Your task to perform on an android device: toggle location history Image 0: 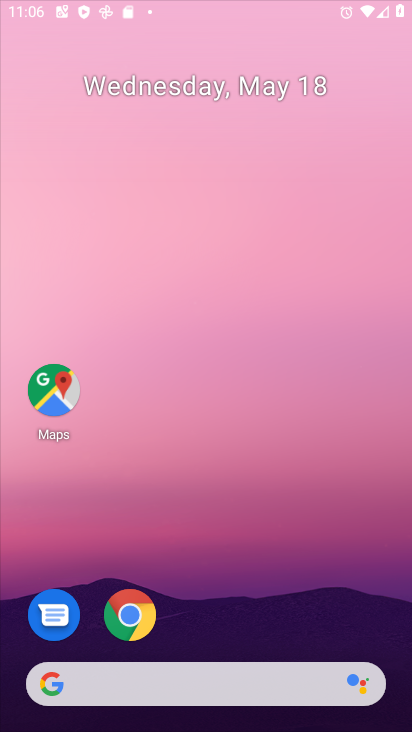
Step 0: drag from (189, 520) to (215, 267)
Your task to perform on an android device: toggle location history Image 1: 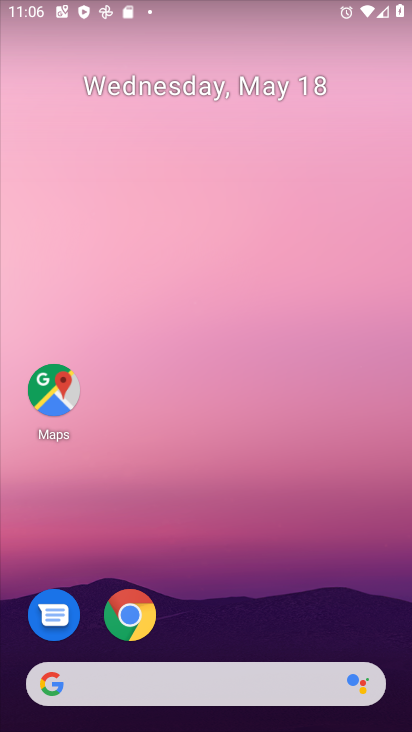
Step 1: drag from (236, 666) to (256, 218)
Your task to perform on an android device: toggle location history Image 2: 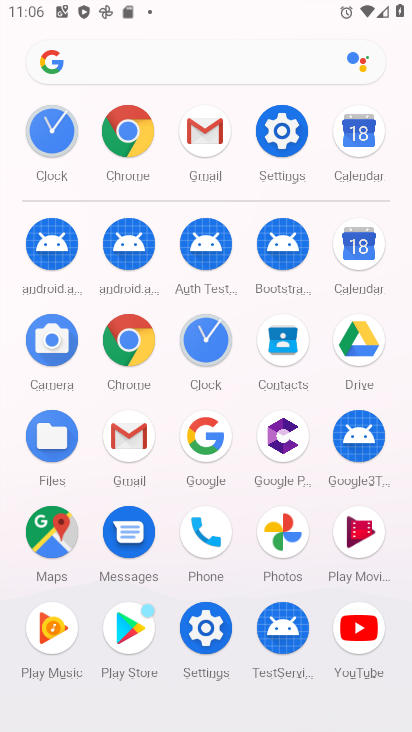
Step 2: click (287, 138)
Your task to perform on an android device: toggle location history Image 3: 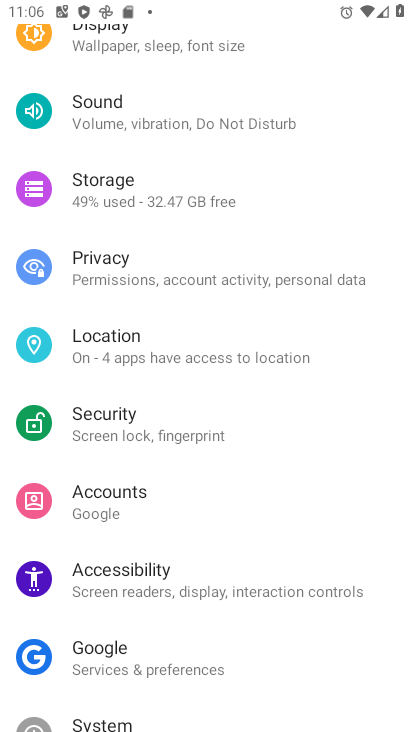
Step 3: click (111, 354)
Your task to perform on an android device: toggle location history Image 4: 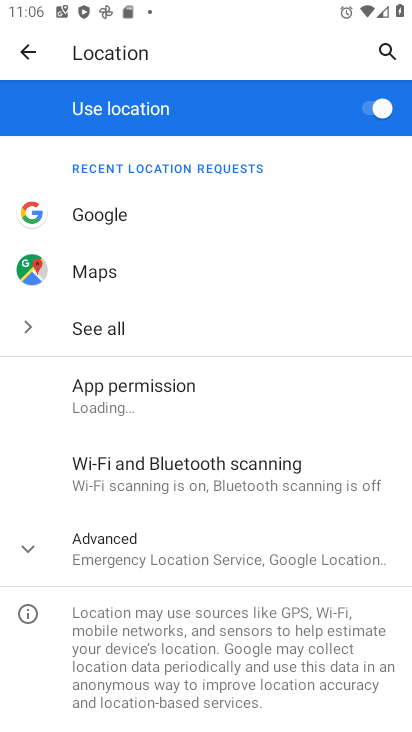
Step 4: click (134, 543)
Your task to perform on an android device: toggle location history Image 5: 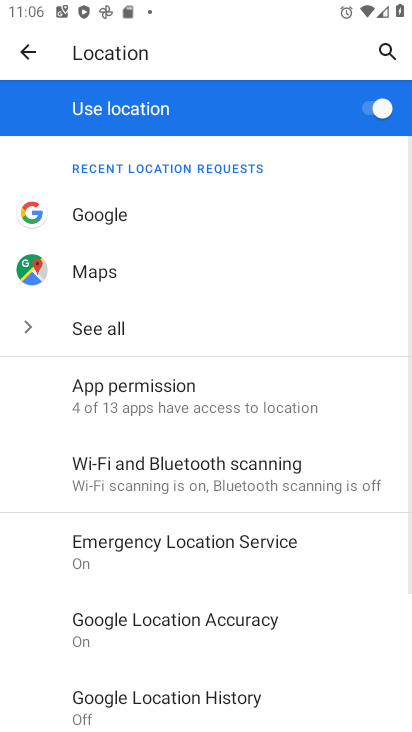
Step 5: click (182, 694)
Your task to perform on an android device: toggle location history Image 6: 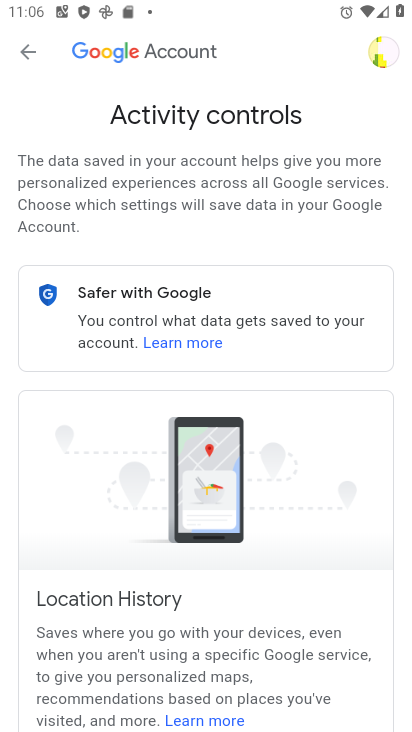
Step 6: drag from (207, 660) to (203, 252)
Your task to perform on an android device: toggle location history Image 7: 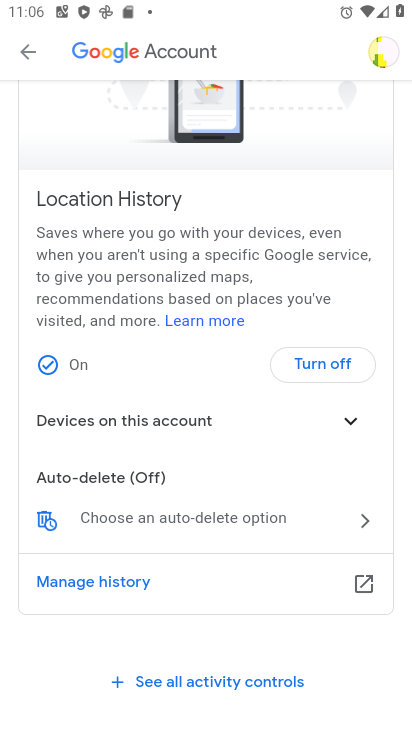
Step 7: click (312, 365)
Your task to perform on an android device: toggle location history Image 8: 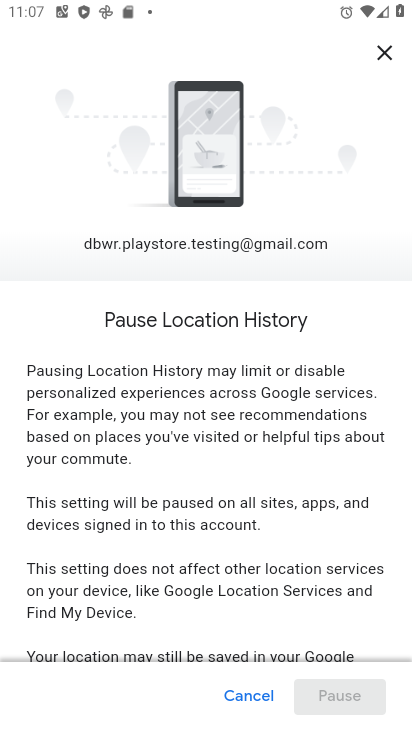
Step 8: drag from (305, 638) to (306, 200)
Your task to perform on an android device: toggle location history Image 9: 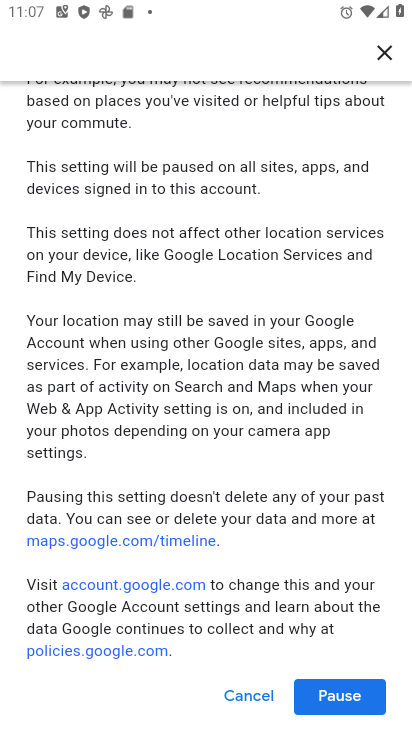
Step 9: click (339, 696)
Your task to perform on an android device: toggle location history Image 10: 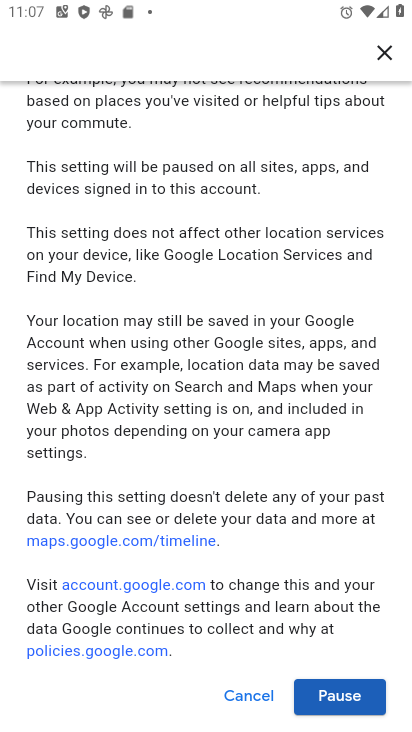
Step 10: click (336, 710)
Your task to perform on an android device: toggle location history Image 11: 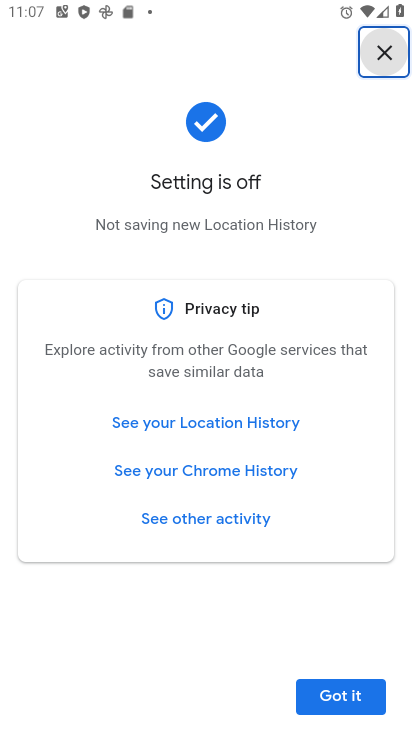
Step 11: click (313, 699)
Your task to perform on an android device: toggle location history Image 12: 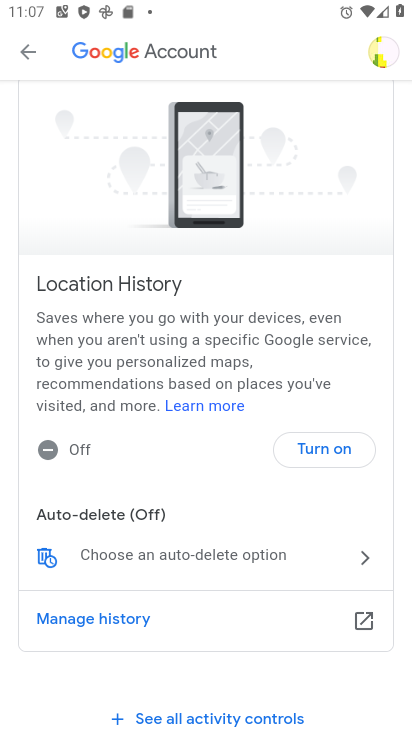
Step 12: task complete